Your task to perform on an android device: Set the phone to "Do not disturb". Image 0: 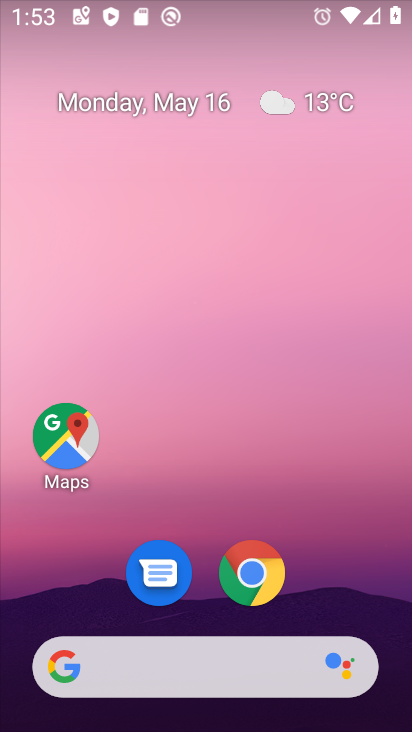
Step 0: drag from (189, 651) to (194, 133)
Your task to perform on an android device: Set the phone to "Do not disturb". Image 1: 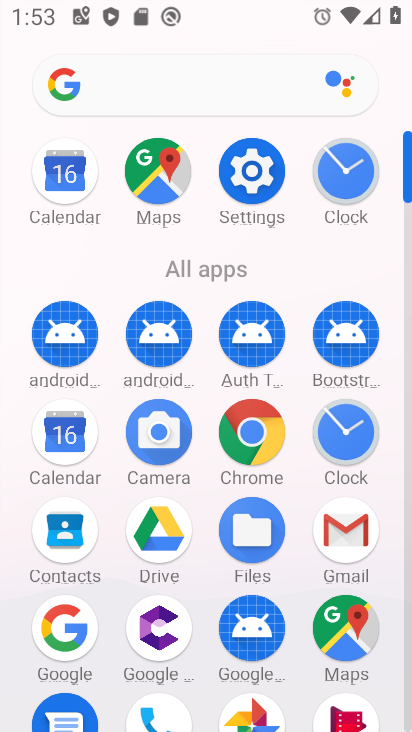
Step 1: click (270, 155)
Your task to perform on an android device: Set the phone to "Do not disturb". Image 2: 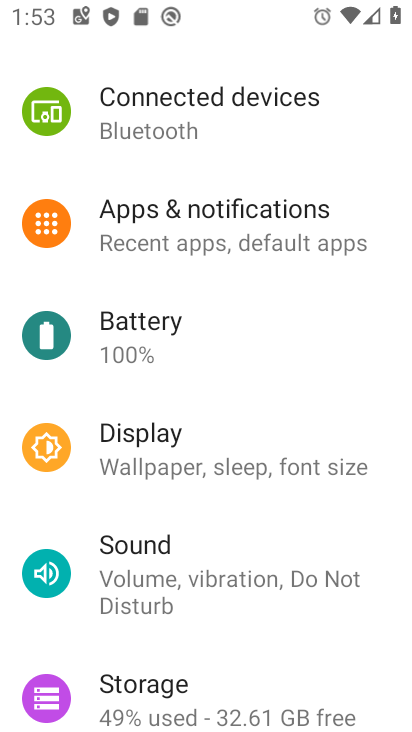
Step 2: click (143, 562)
Your task to perform on an android device: Set the phone to "Do not disturb". Image 3: 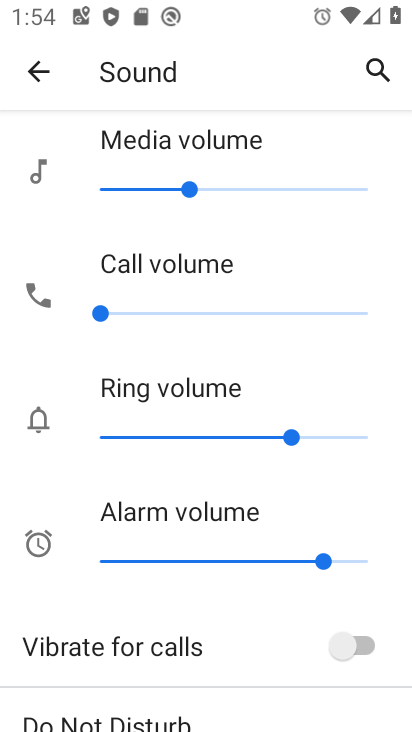
Step 3: drag from (198, 662) to (217, 239)
Your task to perform on an android device: Set the phone to "Do not disturb". Image 4: 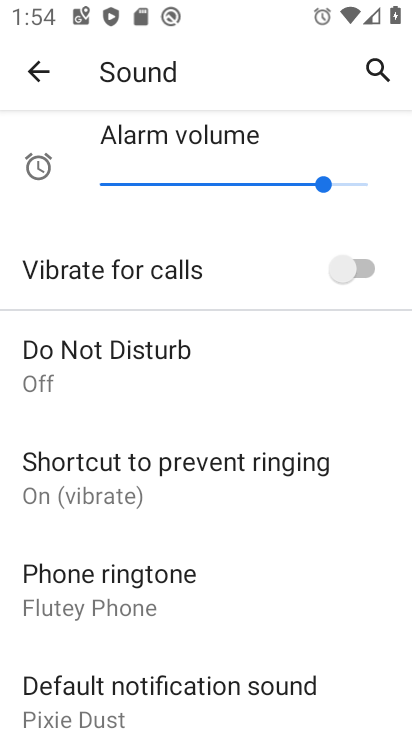
Step 4: click (184, 353)
Your task to perform on an android device: Set the phone to "Do not disturb". Image 5: 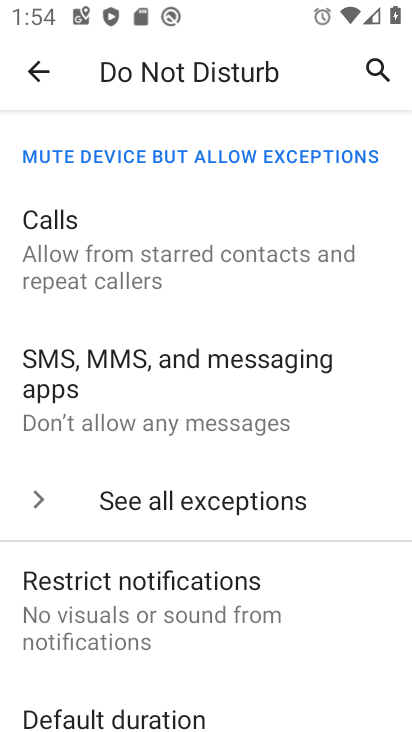
Step 5: drag from (178, 583) to (191, 148)
Your task to perform on an android device: Set the phone to "Do not disturb". Image 6: 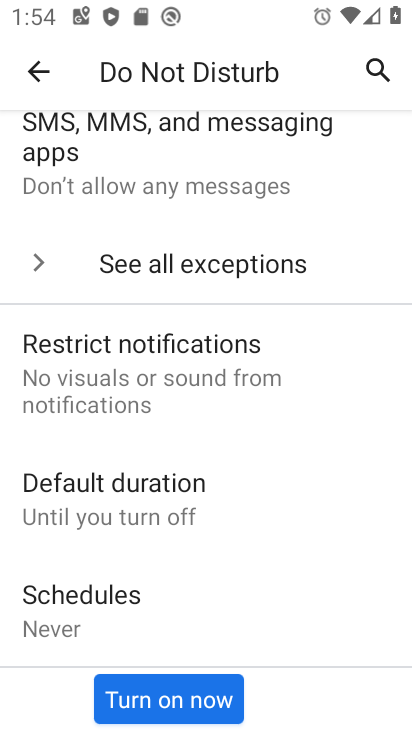
Step 6: click (155, 716)
Your task to perform on an android device: Set the phone to "Do not disturb". Image 7: 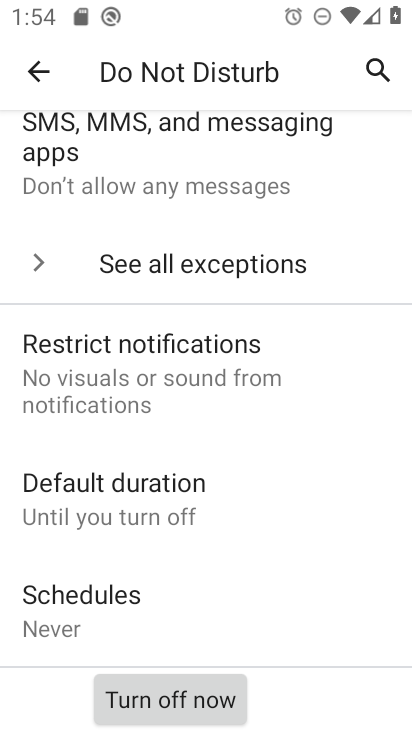
Step 7: task complete